Your task to perform on an android device: Show me recent news Image 0: 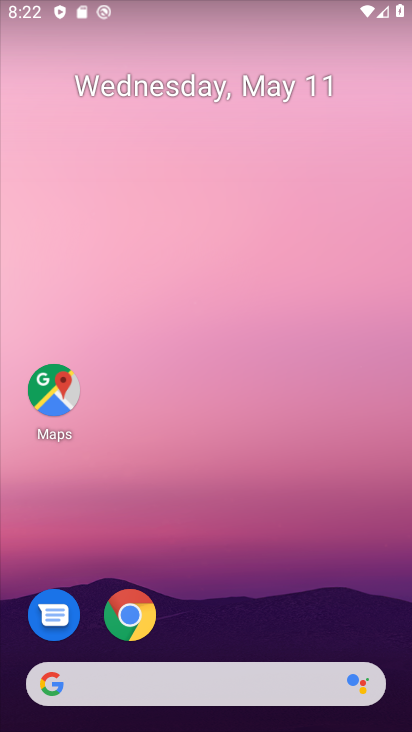
Step 0: drag from (240, 589) to (306, 0)
Your task to perform on an android device: Show me recent news Image 1: 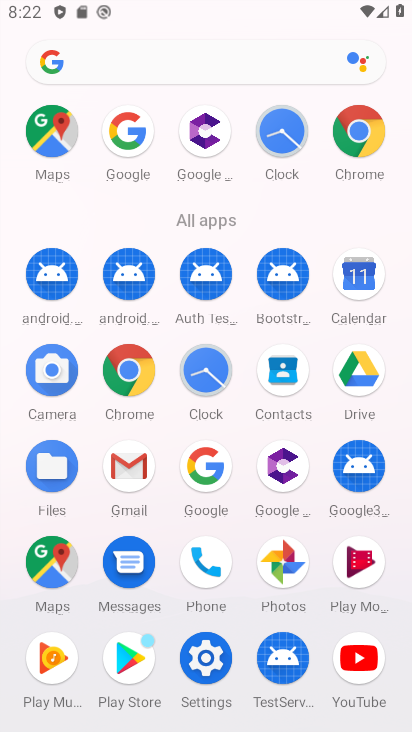
Step 1: click (371, 133)
Your task to perform on an android device: Show me recent news Image 2: 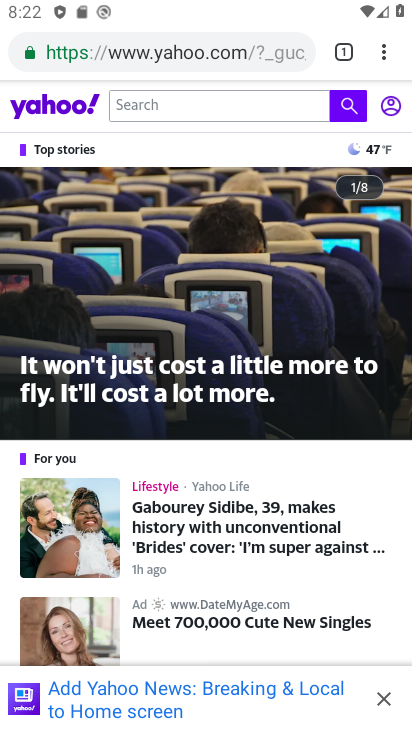
Step 2: task complete